Your task to perform on an android device: Go to calendar. Show me events next week Image 0: 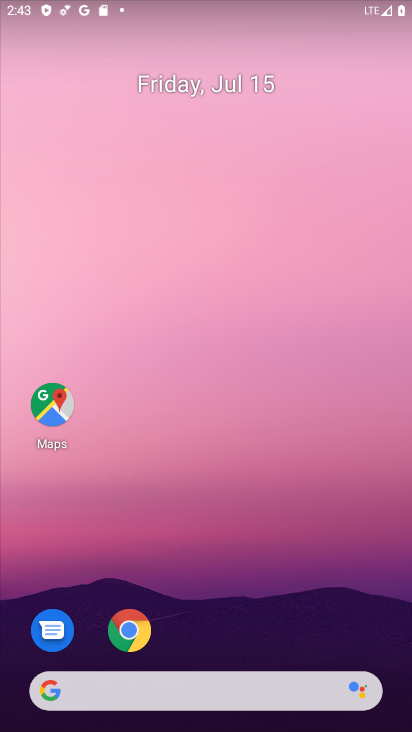
Step 0: click (243, 150)
Your task to perform on an android device: Go to calendar. Show me events next week Image 1: 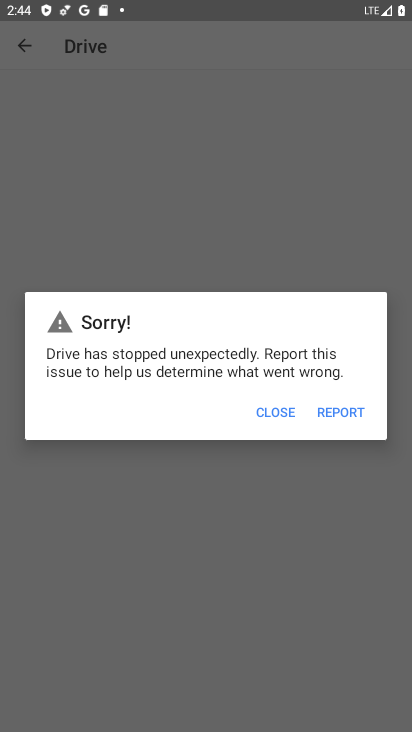
Step 1: press home button
Your task to perform on an android device: Go to calendar. Show me events next week Image 2: 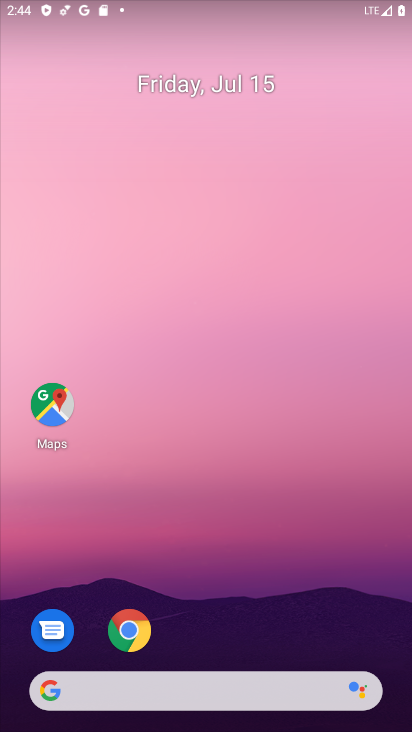
Step 2: drag from (236, 639) to (317, 218)
Your task to perform on an android device: Go to calendar. Show me events next week Image 3: 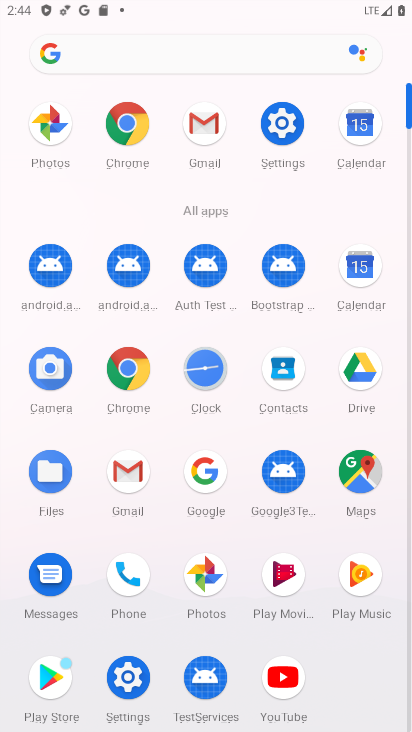
Step 3: click (352, 262)
Your task to perform on an android device: Go to calendar. Show me events next week Image 4: 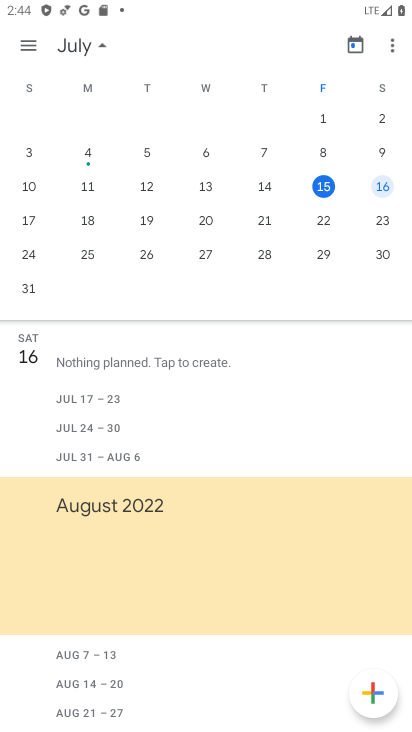
Step 4: click (26, 43)
Your task to perform on an android device: Go to calendar. Show me events next week Image 5: 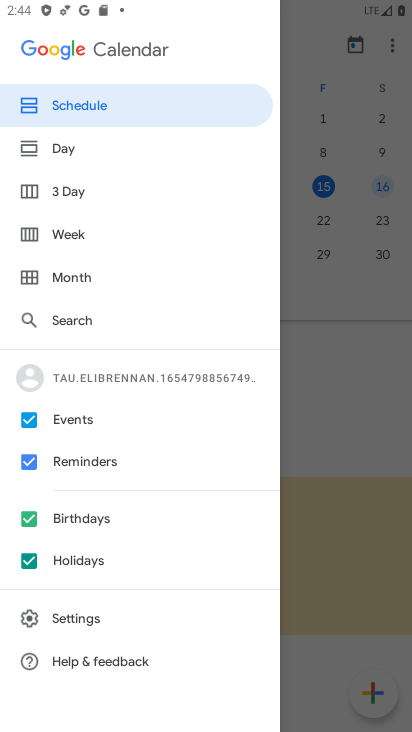
Step 5: click (74, 236)
Your task to perform on an android device: Go to calendar. Show me events next week Image 6: 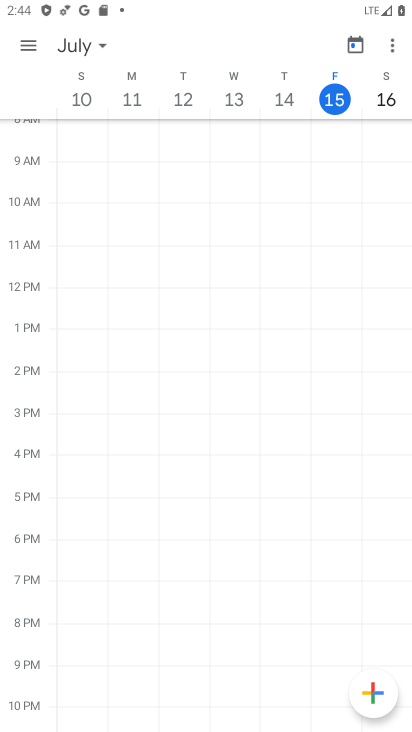
Step 6: task complete